Your task to perform on an android device: turn notification dots on Image 0: 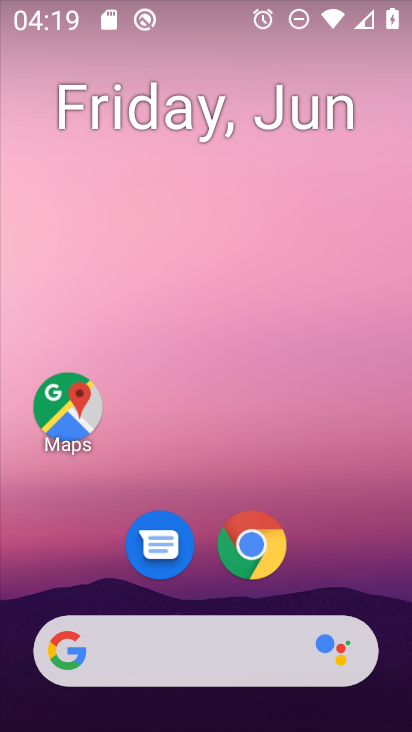
Step 0: drag from (317, 580) to (308, 49)
Your task to perform on an android device: turn notification dots on Image 1: 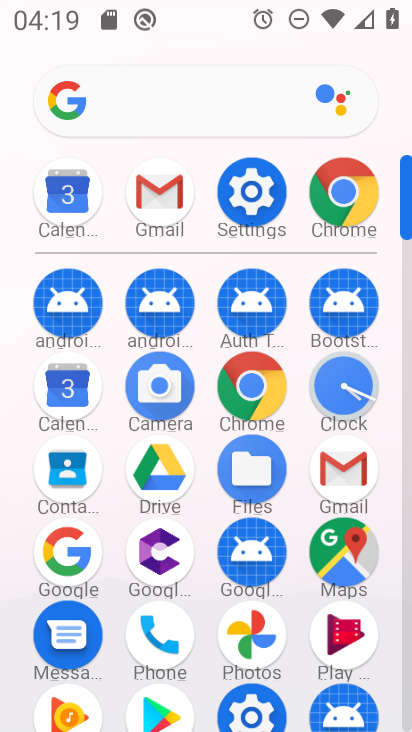
Step 1: click (242, 206)
Your task to perform on an android device: turn notification dots on Image 2: 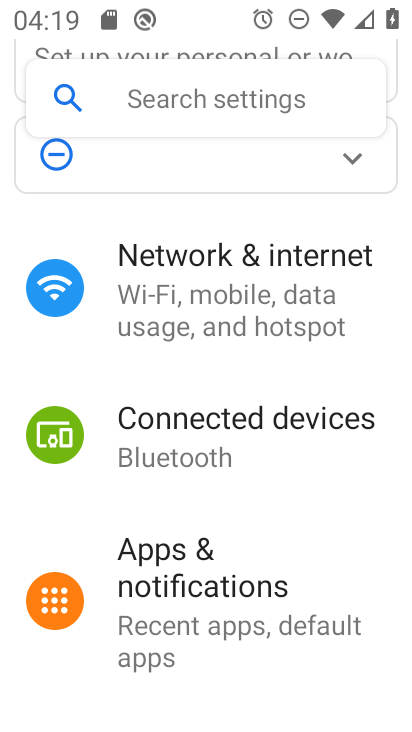
Step 2: drag from (217, 588) to (294, 166)
Your task to perform on an android device: turn notification dots on Image 3: 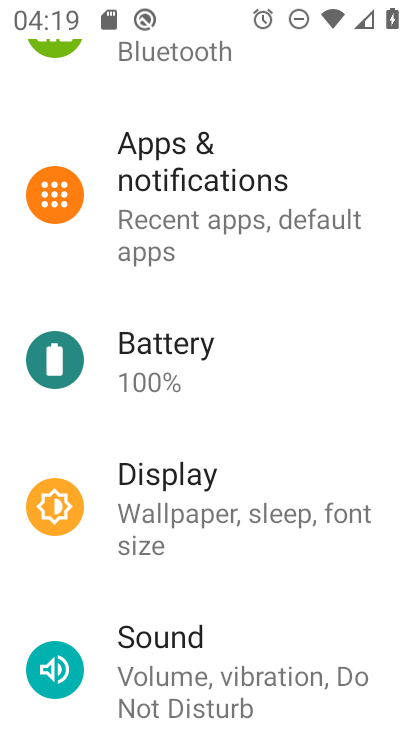
Step 3: click (280, 209)
Your task to perform on an android device: turn notification dots on Image 4: 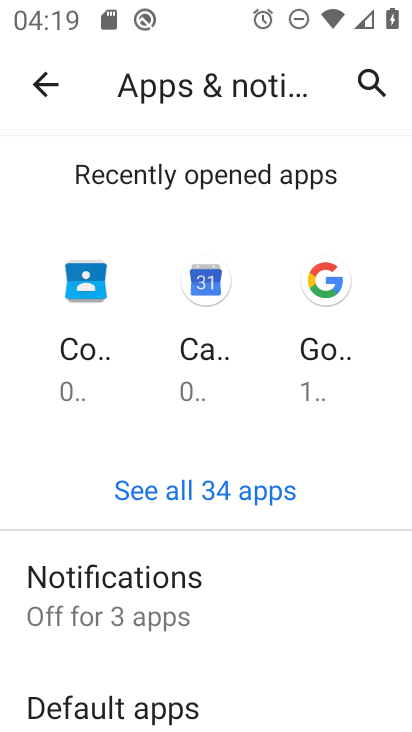
Step 4: click (176, 614)
Your task to perform on an android device: turn notification dots on Image 5: 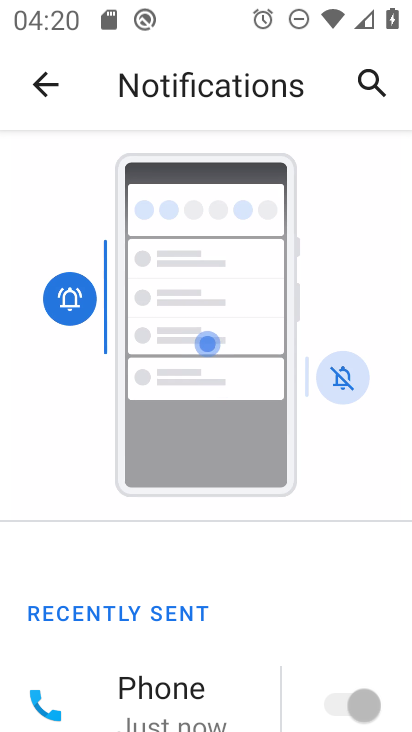
Step 5: drag from (184, 637) to (247, 184)
Your task to perform on an android device: turn notification dots on Image 6: 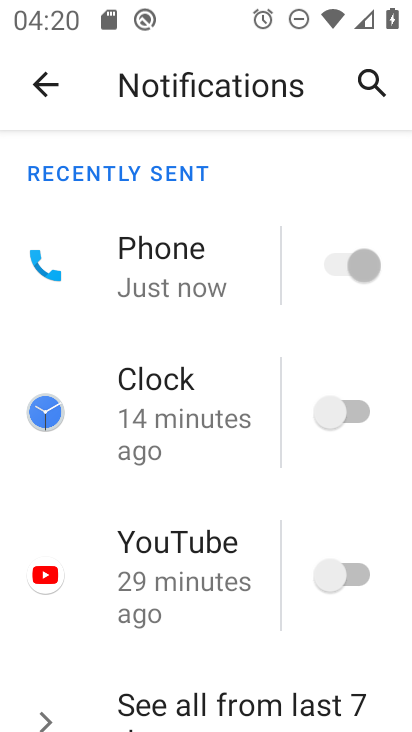
Step 6: drag from (233, 656) to (276, 205)
Your task to perform on an android device: turn notification dots on Image 7: 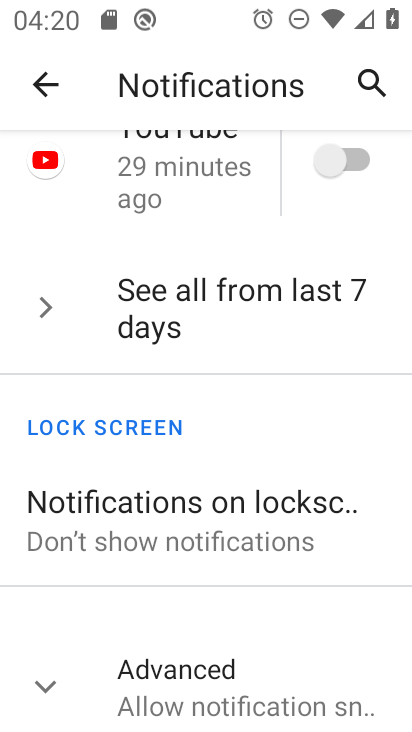
Step 7: click (240, 658)
Your task to perform on an android device: turn notification dots on Image 8: 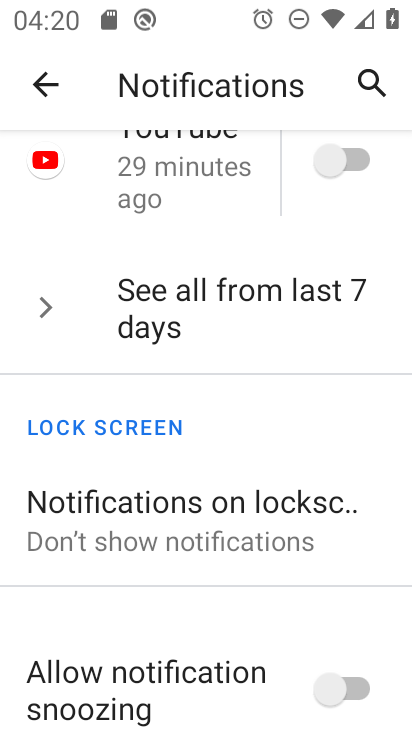
Step 8: task complete